Your task to perform on an android device: open a new tab in the chrome app Image 0: 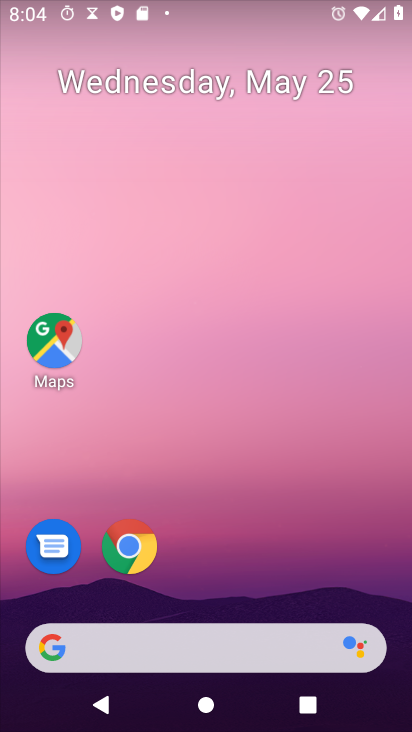
Step 0: click (123, 562)
Your task to perform on an android device: open a new tab in the chrome app Image 1: 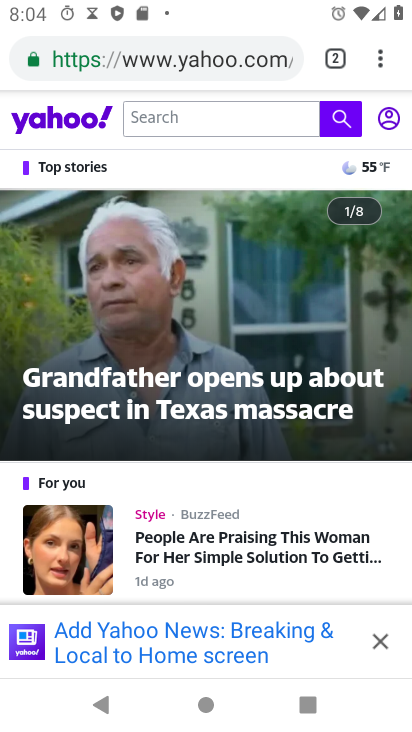
Step 1: click (325, 53)
Your task to perform on an android device: open a new tab in the chrome app Image 2: 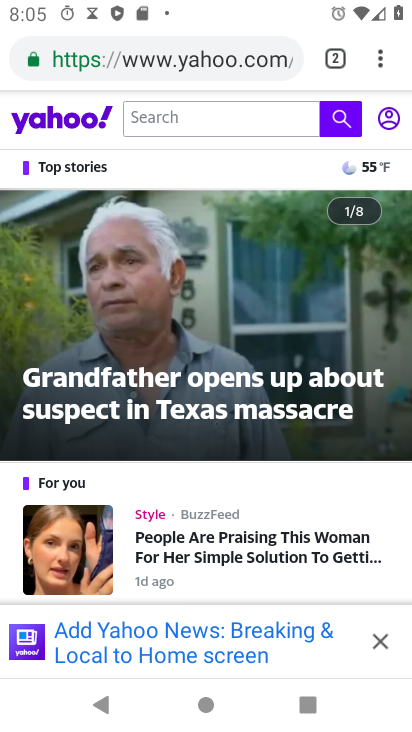
Step 2: click (342, 62)
Your task to perform on an android device: open a new tab in the chrome app Image 3: 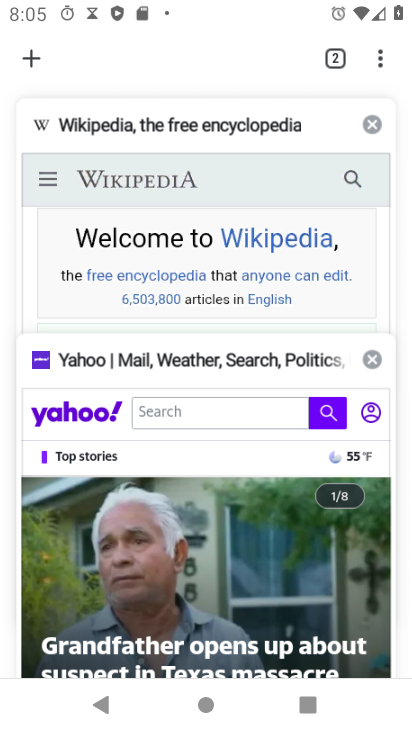
Step 3: click (26, 57)
Your task to perform on an android device: open a new tab in the chrome app Image 4: 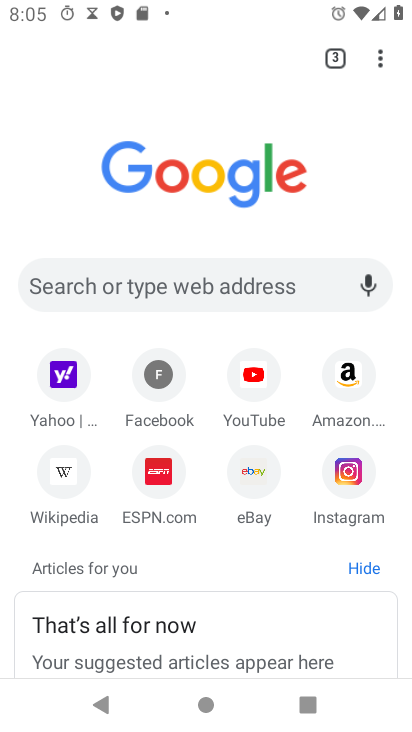
Step 4: task complete